Your task to perform on an android device: Search for Italian restaurants on Maps Image 0: 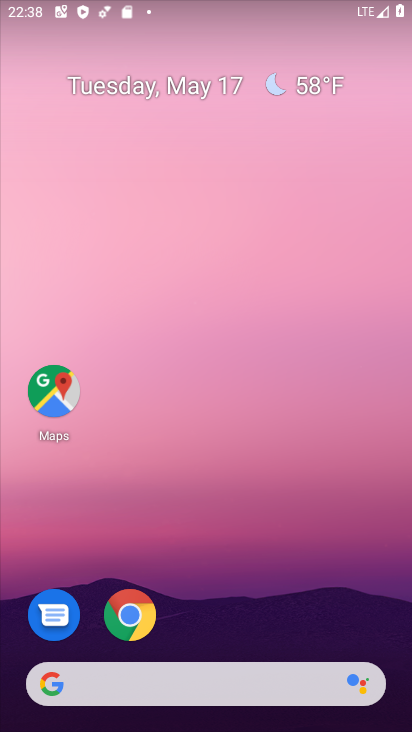
Step 0: click (67, 407)
Your task to perform on an android device: Search for Italian restaurants on Maps Image 1: 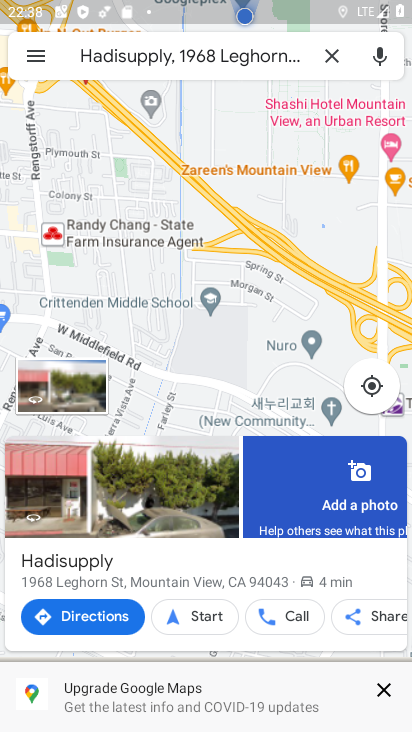
Step 1: click (327, 54)
Your task to perform on an android device: Search for Italian restaurants on Maps Image 2: 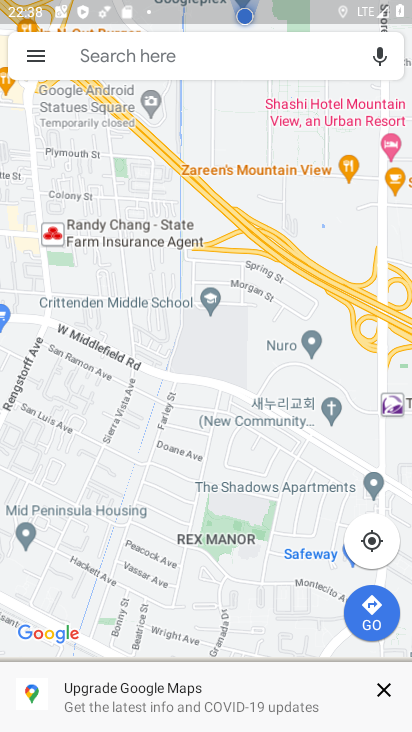
Step 2: click (96, 63)
Your task to perform on an android device: Search for Italian restaurants on Maps Image 3: 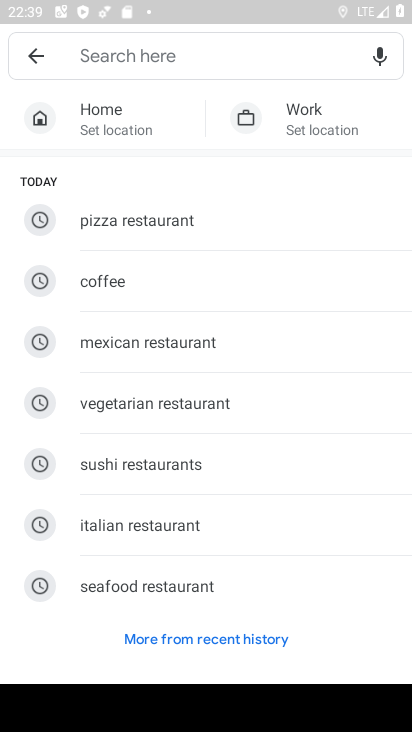
Step 3: type "Italian restaurants"
Your task to perform on an android device: Search for Italian restaurants on Maps Image 4: 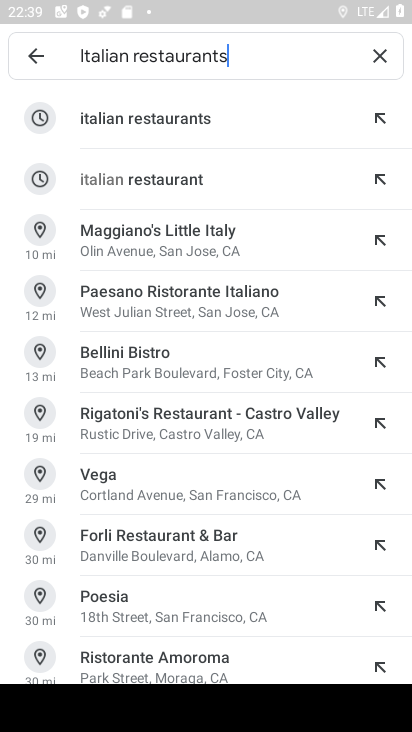
Step 4: click (150, 125)
Your task to perform on an android device: Search for Italian restaurants on Maps Image 5: 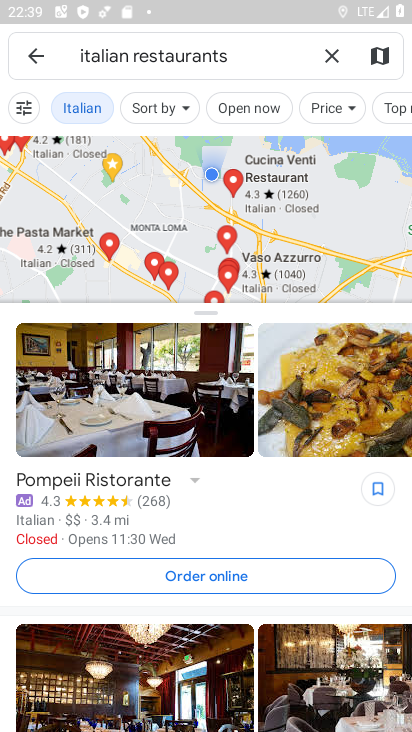
Step 5: task complete